Your task to perform on an android device: find photos in the google photos app Image 0: 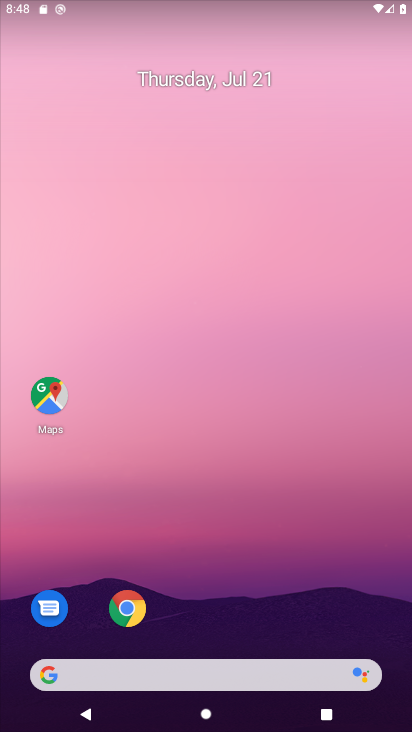
Step 0: drag from (204, 451) to (197, 196)
Your task to perform on an android device: find photos in the google photos app Image 1: 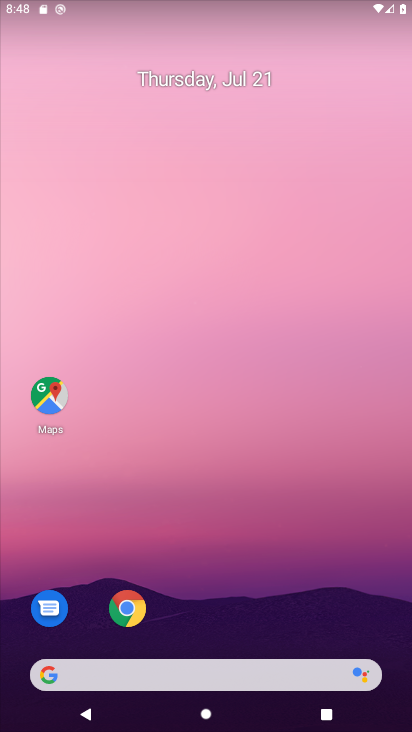
Step 1: drag from (213, 625) to (219, 26)
Your task to perform on an android device: find photos in the google photos app Image 2: 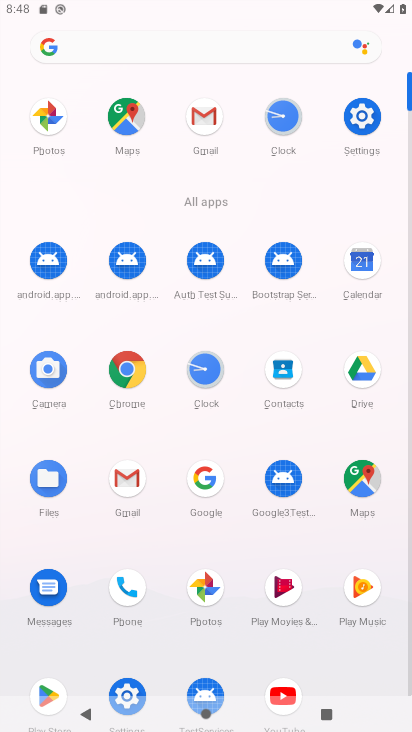
Step 2: click (206, 594)
Your task to perform on an android device: find photos in the google photos app Image 3: 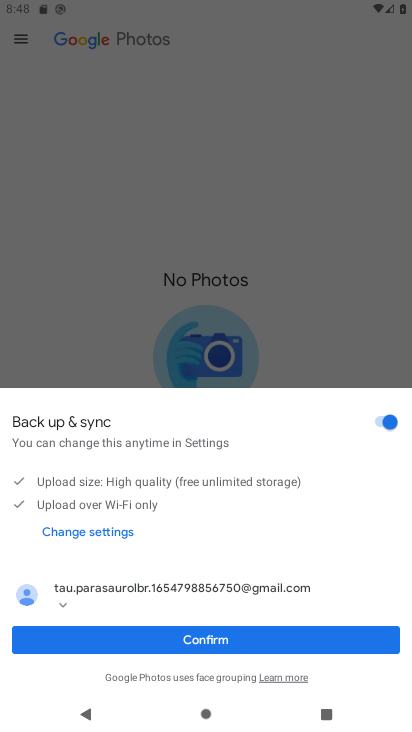
Step 3: click (182, 642)
Your task to perform on an android device: find photos in the google photos app Image 4: 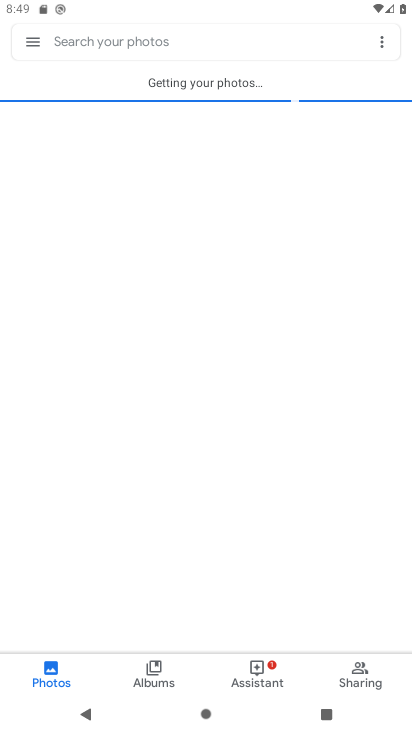
Step 4: task complete